Your task to perform on an android device: Search for seafood restaurants on Google Maps Image 0: 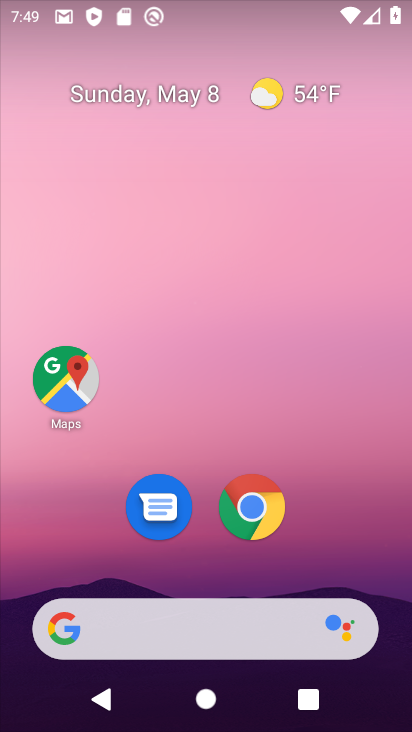
Step 0: click (72, 387)
Your task to perform on an android device: Search for seafood restaurants on Google Maps Image 1: 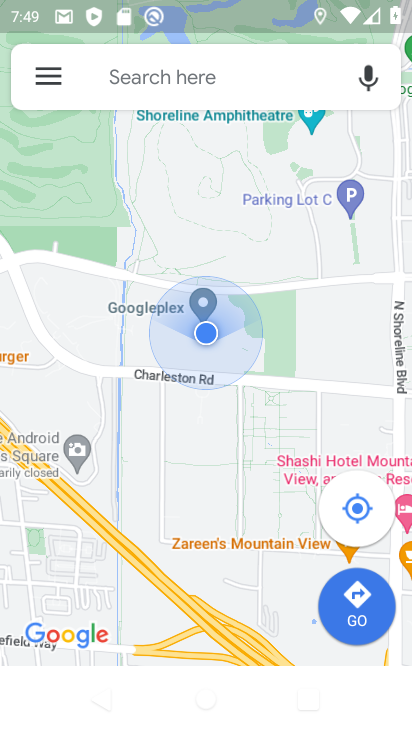
Step 1: click (201, 69)
Your task to perform on an android device: Search for seafood restaurants on Google Maps Image 2: 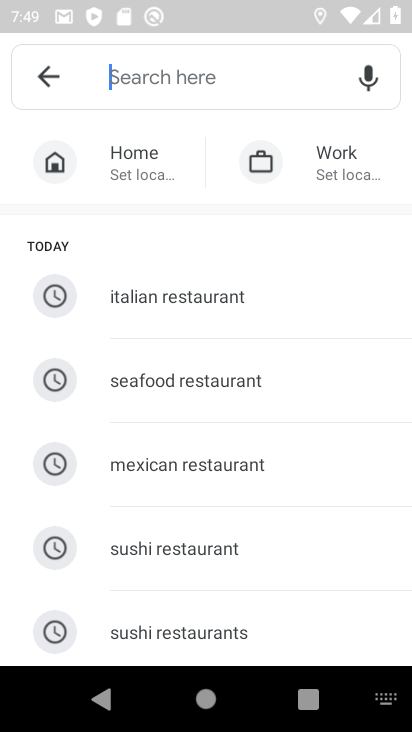
Step 2: click (280, 389)
Your task to perform on an android device: Search for seafood restaurants on Google Maps Image 3: 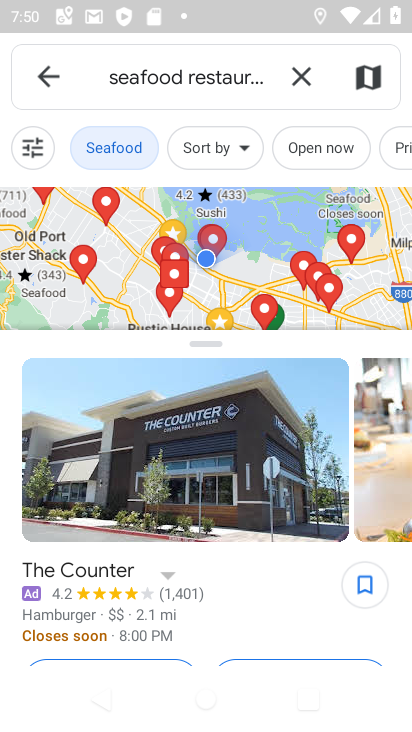
Step 3: task complete